Your task to perform on an android device: toggle notifications settings in the gmail app Image 0: 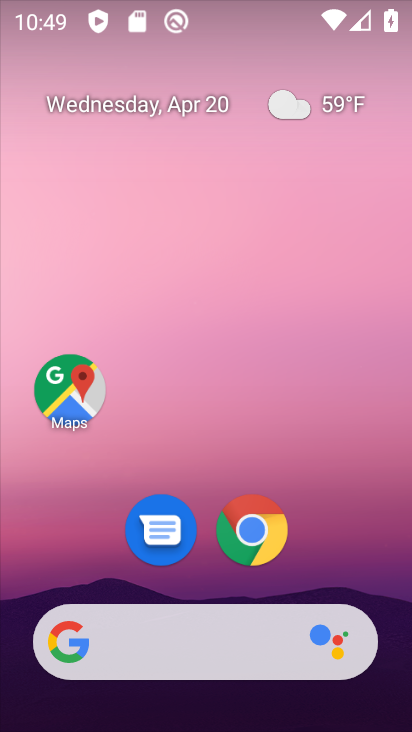
Step 0: drag from (332, 482) to (323, 20)
Your task to perform on an android device: toggle notifications settings in the gmail app Image 1: 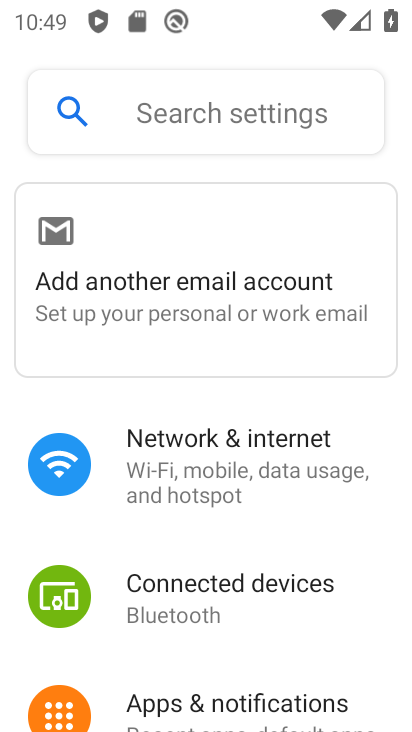
Step 1: press home button
Your task to perform on an android device: toggle notifications settings in the gmail app Image 2: 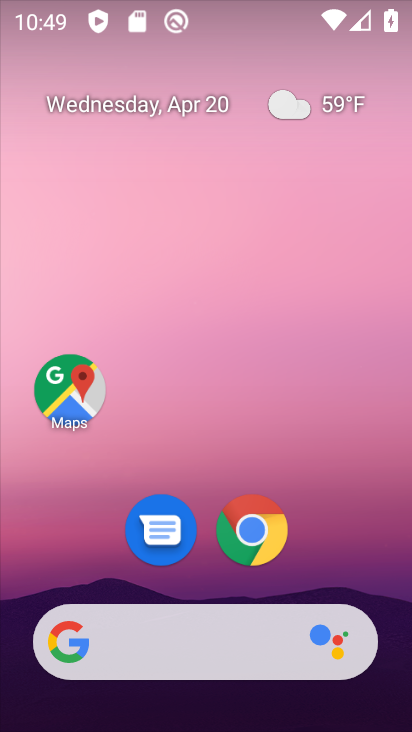
Step 2: drag from (341, 501) to (332, 163)
Your task to perform on an android device: toggle notifications settings in the gmail app Image 3: 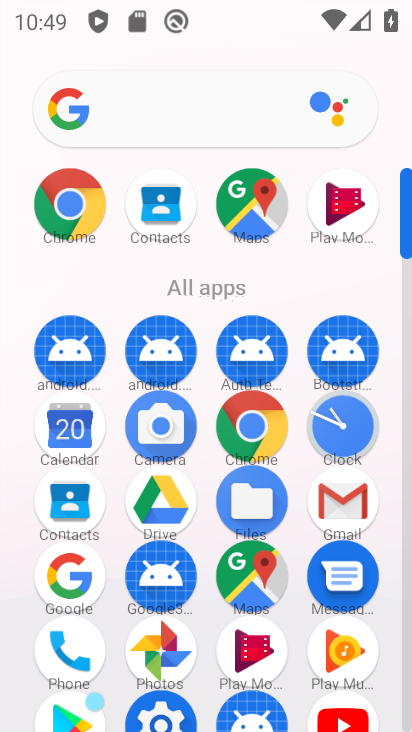
Step 3: click (350, 482)
Your task to perform on an android device: toggle notifications settings in the gmail app Image 4: 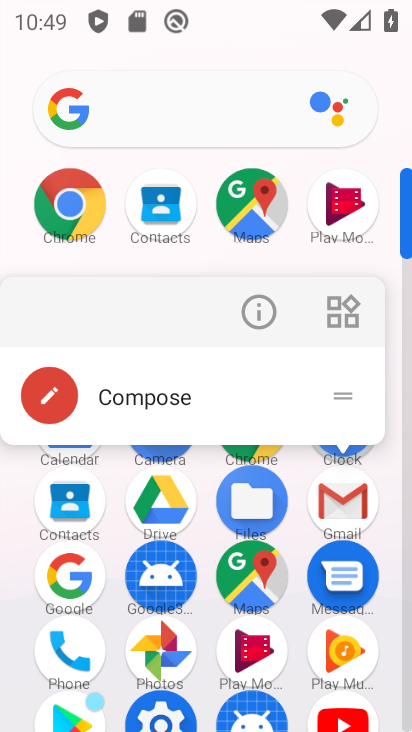
Step 4: click (252, 298)
Your task to perform on an android device: toggle notifications settings in the gmail app Image 5: 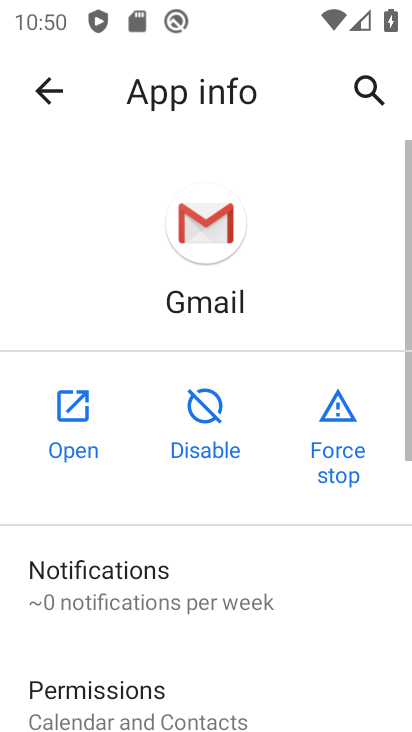
Step 5: click (195, 573)
Your task to perform on an android device: toggle notifications settings in the gmail app Image 6: 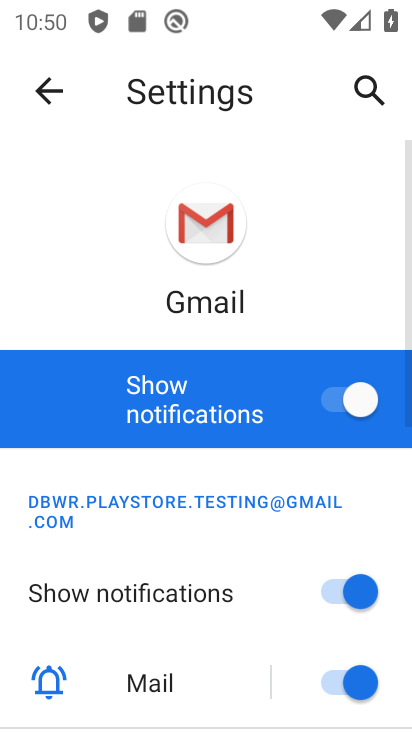
Step 6: click (343, 405)
Your task to perform on an android device: toggle notifications settings in the gmail app Image 7: 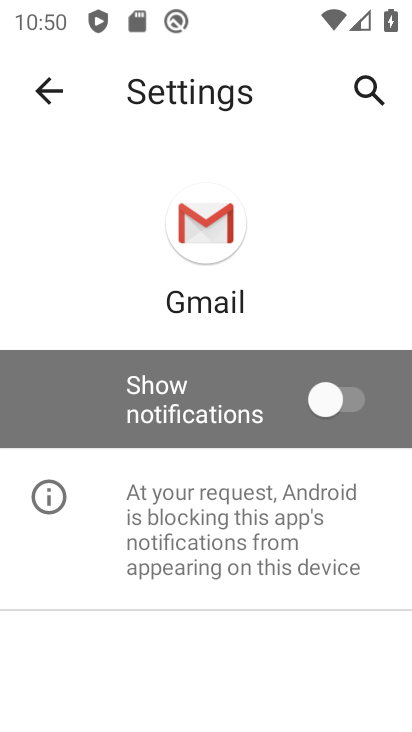
Step 7: task complete